Your task to perform on an android device: Open Chrome and go to settings Image 0: 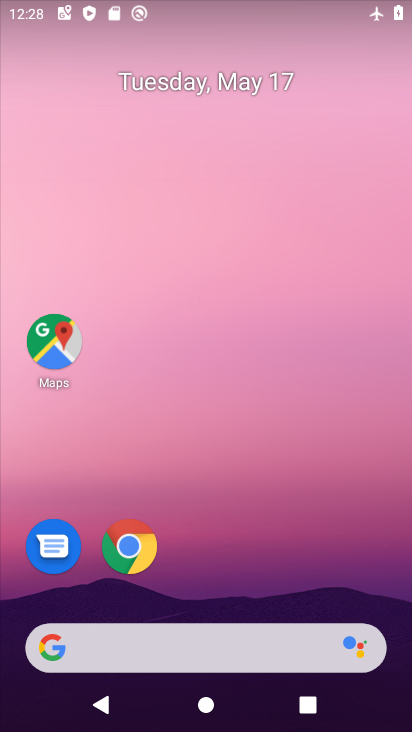
Step 0: click (130, 549)
Your task to perform on an android device: Open Chrome and go to settings Image 1: 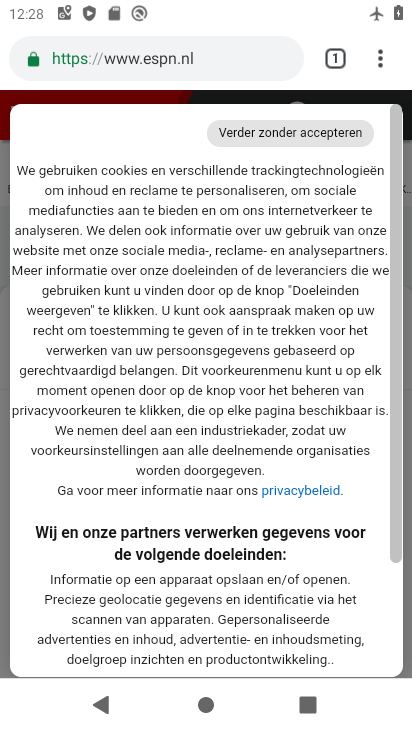
Step 1: click (380, 62)
Your task to perform on an android device: Open Chrome and go to settings Image 2: 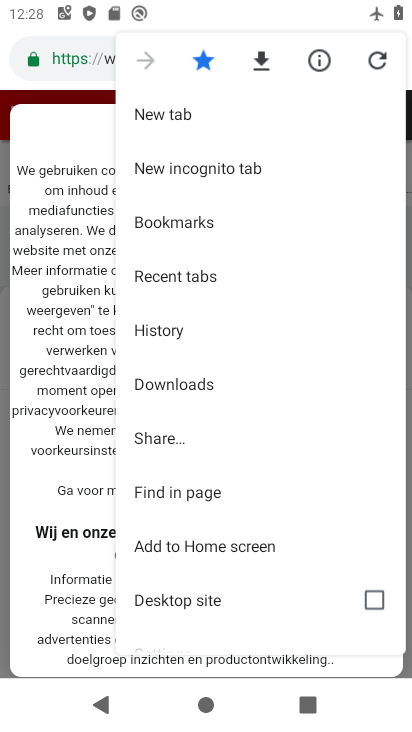
Step 2: drag from (274, 614) to (293, 216)
Your task to perform on an android device: Open Chrome and go to settings Image 3: 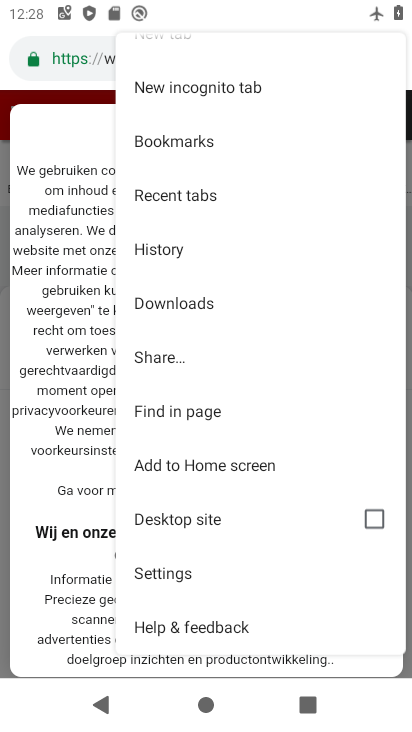
Step 3: click (168, 572)
Your task to perform on an android device: Open Chrome and go to settings Image 4: 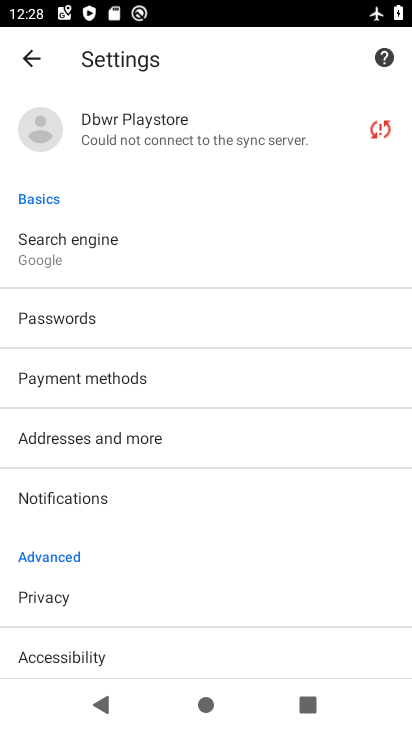
Step 4: task complete